Your task to perform on an android device: find snoozed emails in the gmail app Image 0: 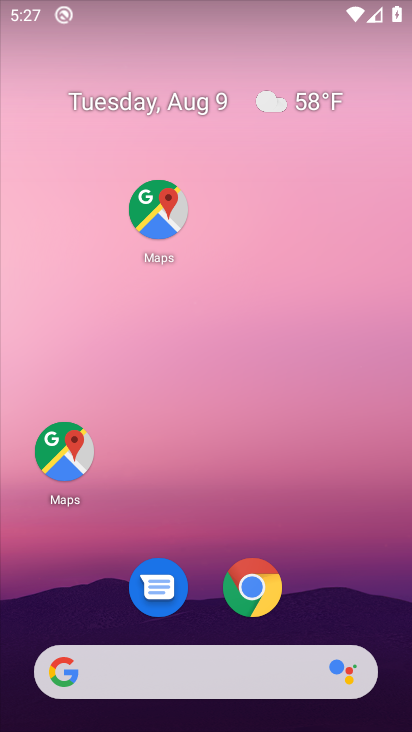
Step 0: drag from (256, 706) to (182, 234)
Your task to perform on an android device: find snoozed emails in the gmail app Image 1: 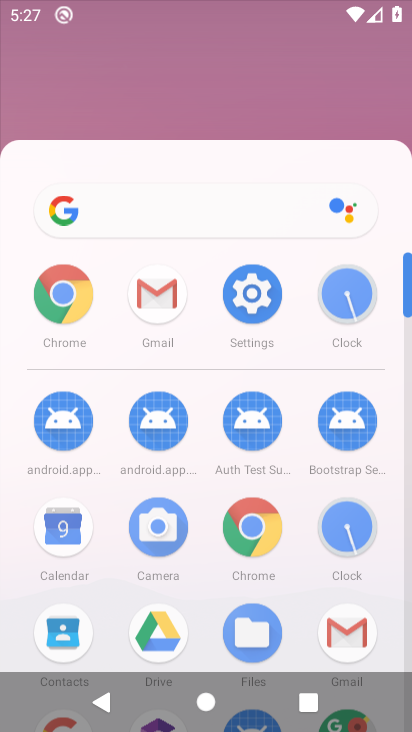
Step 1: drag from (280, 617) to (190, 43)
Your task to perform on an android device: find snoozed emails in the gmail app Image 2: 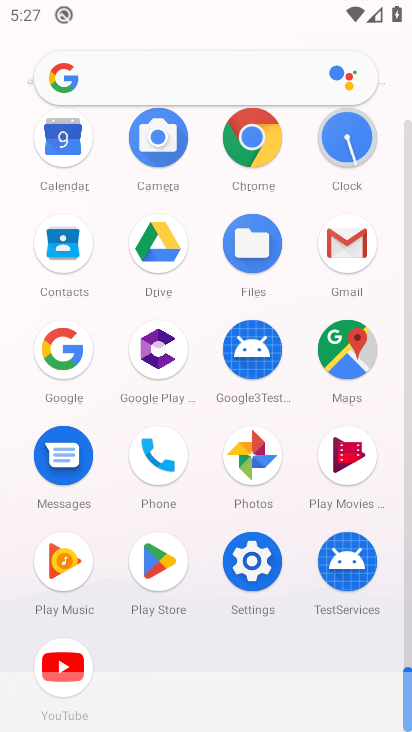
Step 2: click (366, 246)
Your task to perform on an android device: find snoozed emails in the gmail app Image 3: 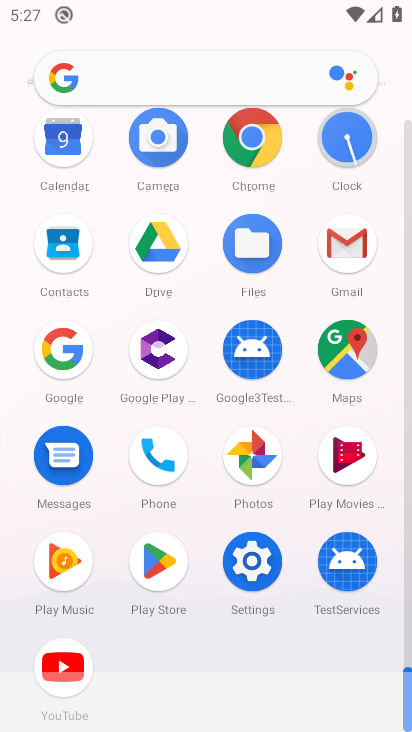
Step 3: click (366, 246)
Your task to perform on an android device: find snoozed emails in the gmail app Image 4: 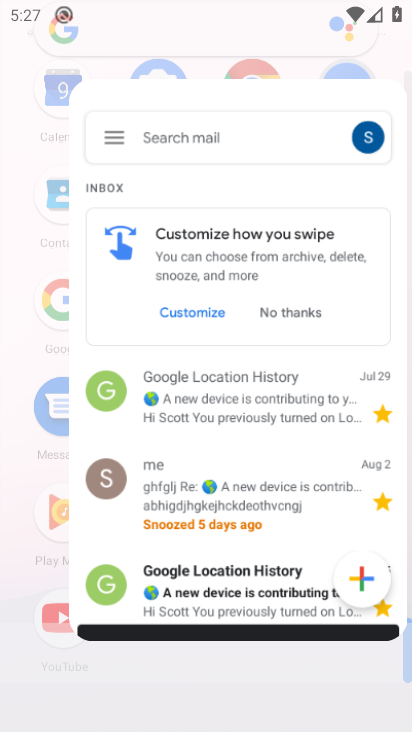
Step 4: click (365, 246)
Your task to perform on an android device: find snoozed emails in the gmail app Image 5: 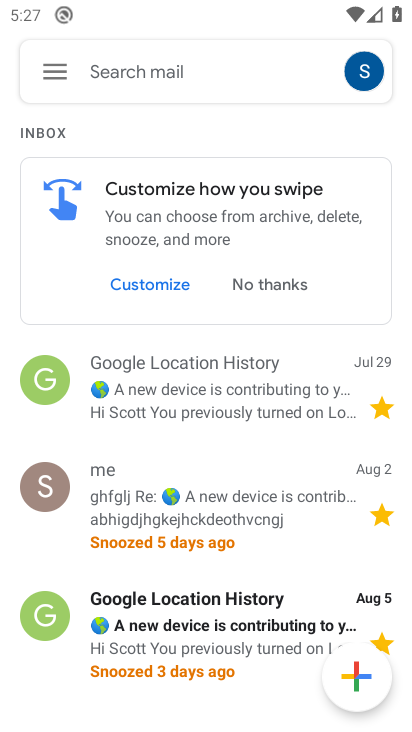
Step 5: click (183, 404)
Your task to perform on an android device: find snoozed emails in the gmail app Image 6: 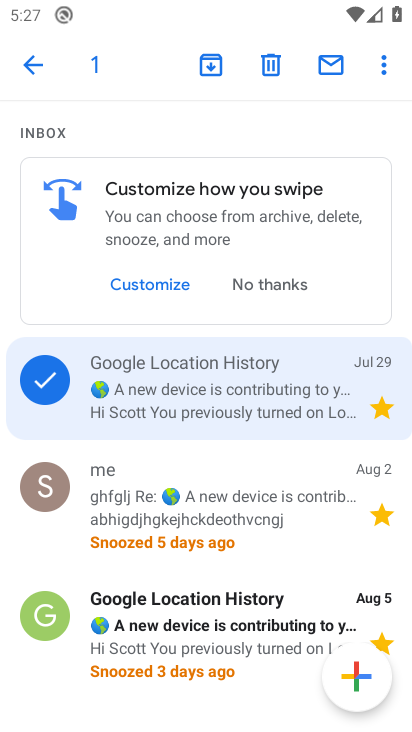
Step 6: click (374, 61)
Your task to perform on an android device: find snoozed emails in the gmail app Image 7: 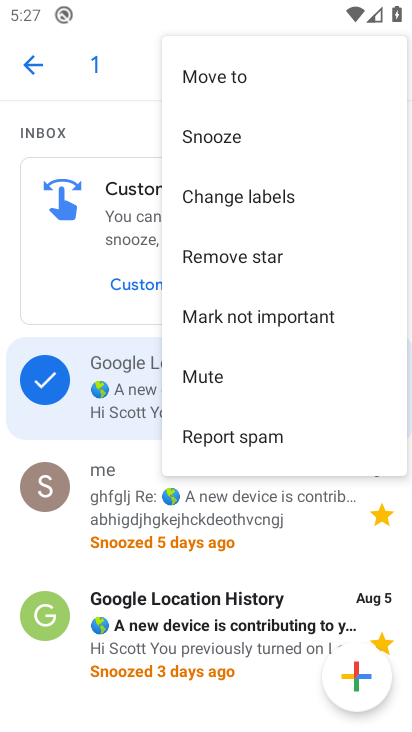
Step 7: click (211, 149)
Your task to perform on an android device: find snoozed emails in the gmail app Image 8: 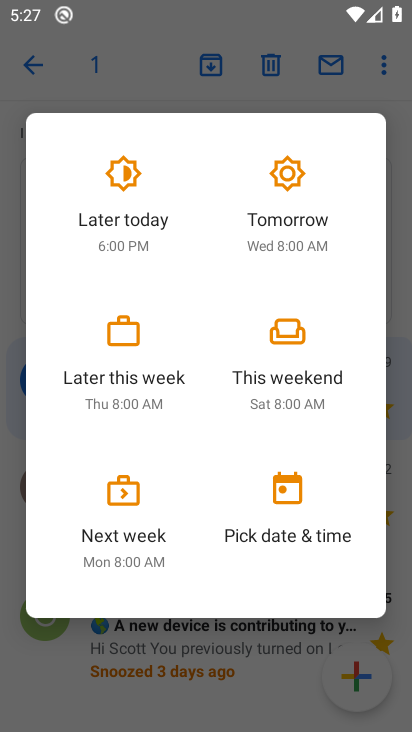
Step 8: click (286, 216)
Your task to perform on an android device: find snoozed emails in the gmail app Image 9: 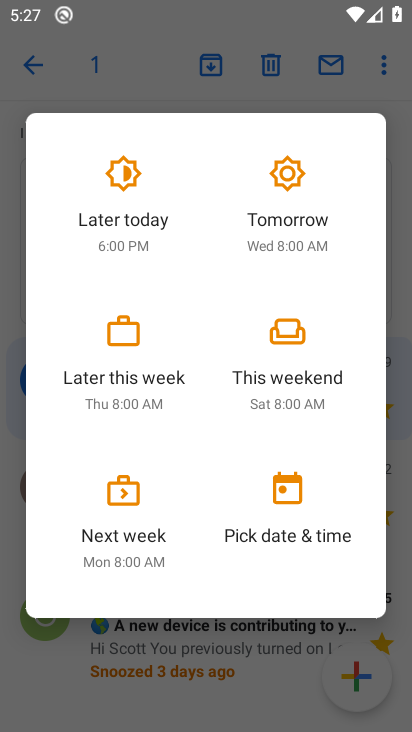
Step 9: click (285, 217)
Your task to perform on an android device: find snoozed emails in the gmail app Image 10: 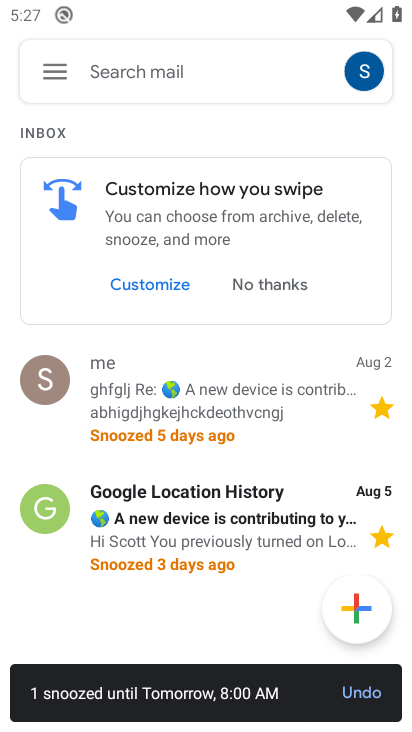
Step 10: task complete